Your task to perform on an android device: turn off smart reply in the gmail app Image 0: 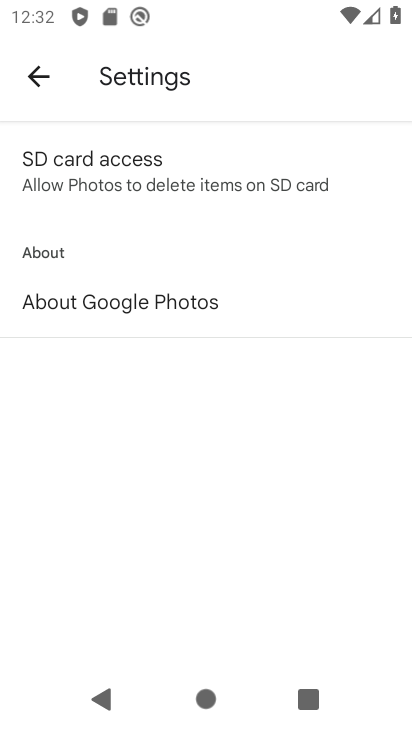
Step 0: press home button
Your task to perform on an android device: turn off smart reply in the gmail app Image 1: 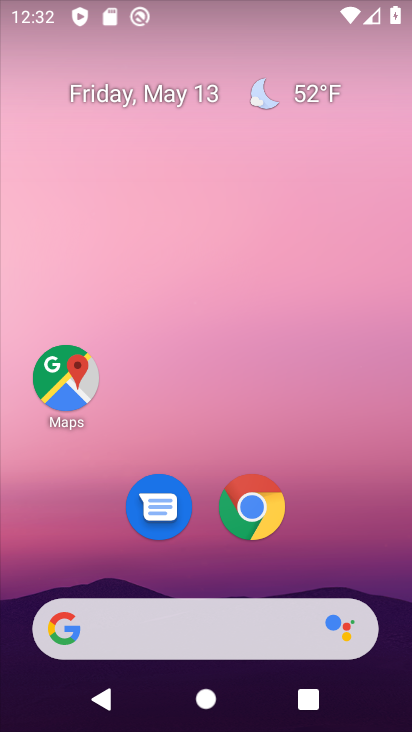
Step 1: drag from (185, 598) to (216, 147)
Your task to perform on an android device: turn off smart reply in the gmail app Image 2: 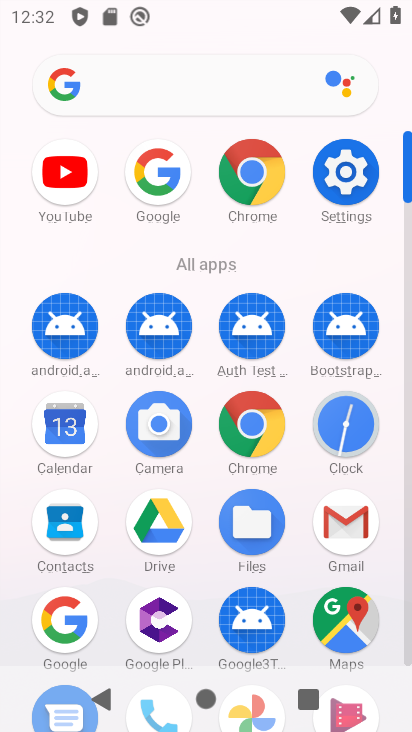
Step 2: click (339, 531)
Your task to perform on an android device: turn off smart reply in the gmail app Image 3: 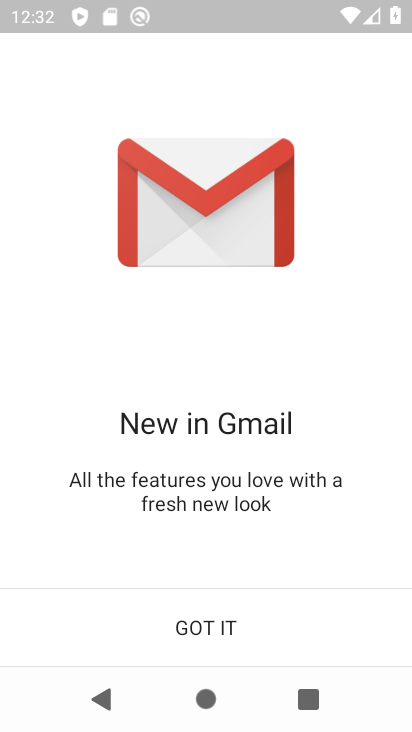
Step 3: click (220, 620)
Your task to perform on an android device: turn off smart reply in the gmail app Image 4: 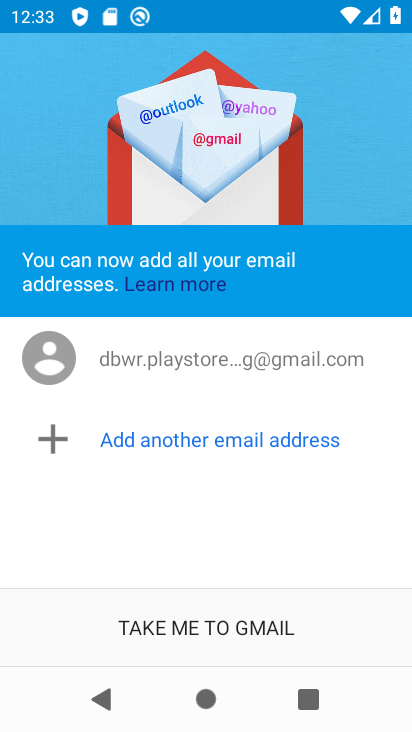
Step 4: click (218, 619)
Your task to perform on an android device: turn off smart reply in the gmail app Image 5: 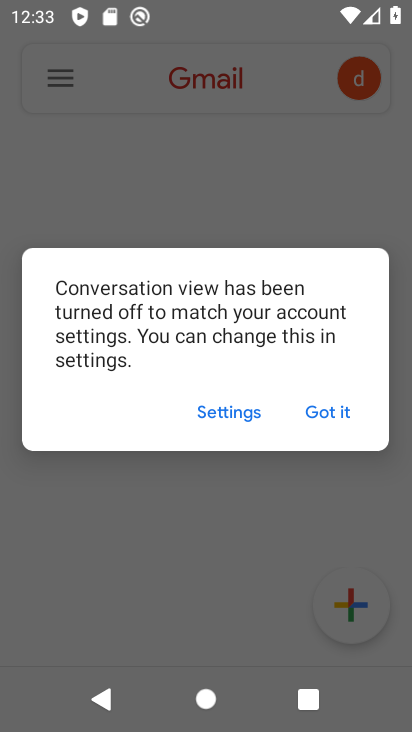
Step 5: click (306, 423)
Your task to perform on an android device: turn off smart reply in the gmail app Image 6: 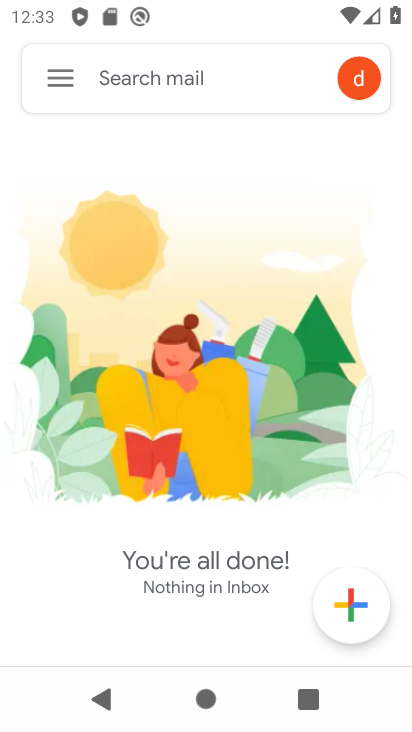
Step 6: click (64, 77)
Your task to perform on an android device: turn off smart reply in the gmail app Image 7: 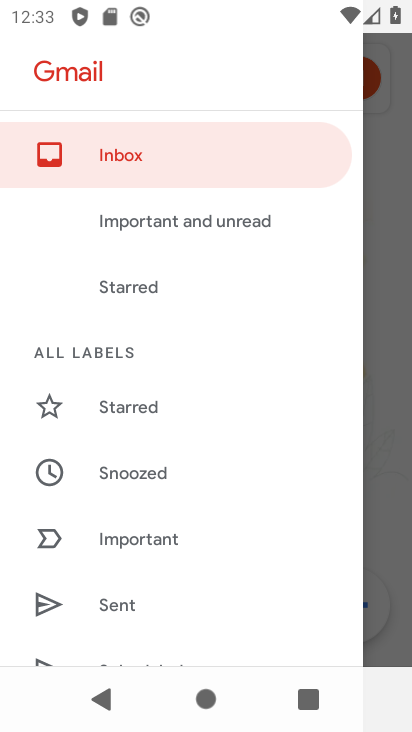
Step 7: drag from (112, 603) to (131, 237)
Your task to perform on an android device: turn off smart reply in the gmail app Image 8: 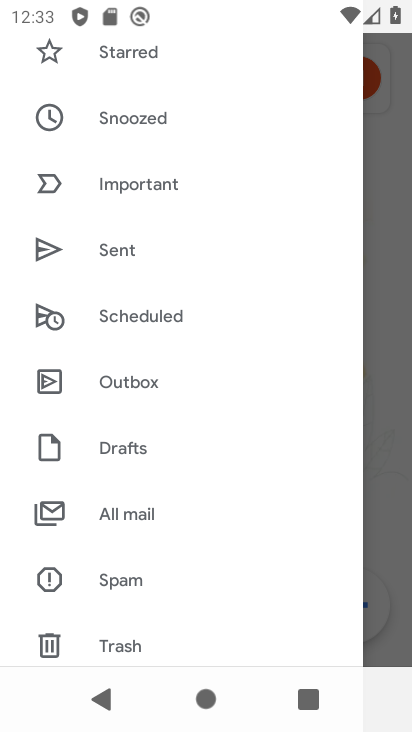
Step 8: drag from (159, 652) to (167, 310)
Your task to perform on an android device: turn off smart reply in the gmail app Image 9: 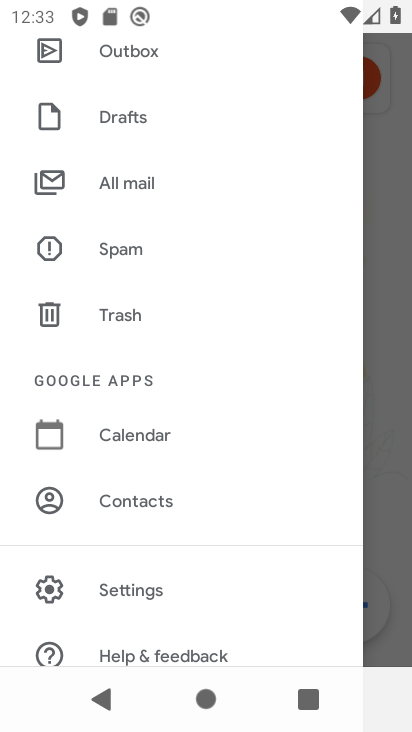
Step 9: click (135, 599)
Your task to perform on an android device: turn off smart reply in the gmail app Image 10: 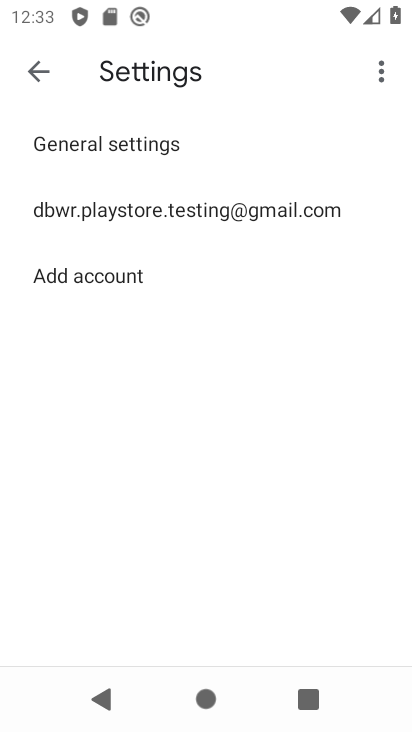
Step 10: click (135, 210)
Your task to perform on an android device: turn off smart reply in the gmail app Image 11: 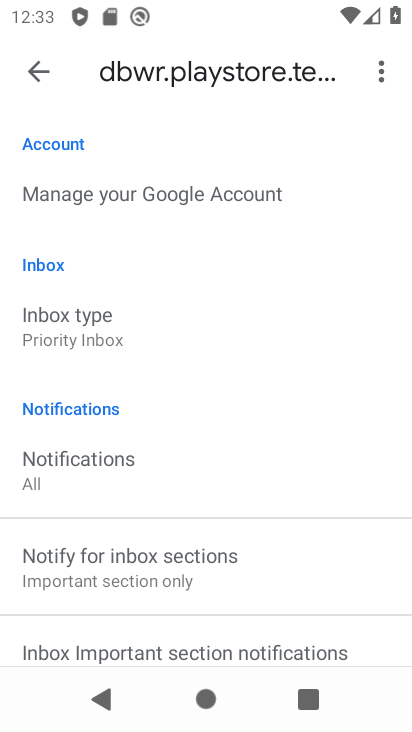
Step 11: drag from (116, 595) to (106, 239)
Your task to perform on an android device: turn off smart reply in the gmail app Image 12: 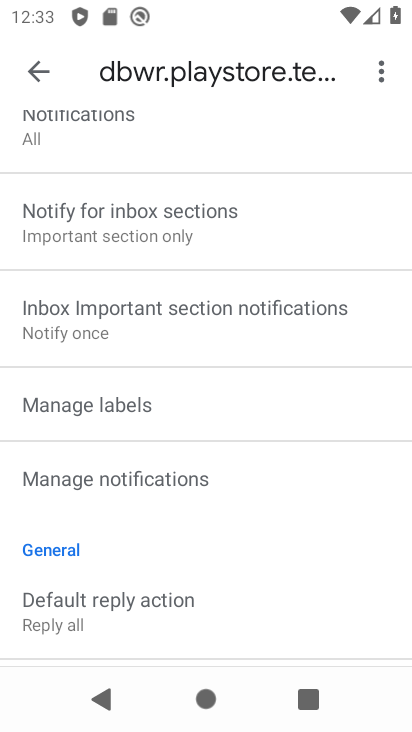
Step 12: drag from (123, 629) to (167, 305)
Your task to perform on an android device: turn off smart reply in the gmail app Image 13: 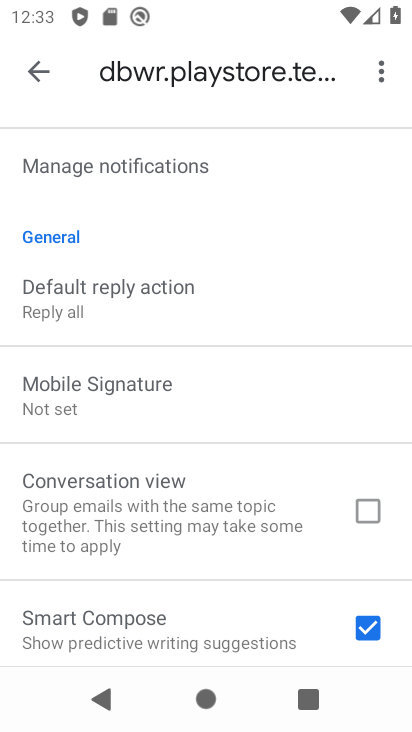
Step 13: drag from (173, 624) to (177, 329)
Your task to perform on an android device: turn off smart reply in the gmail app Image 14: 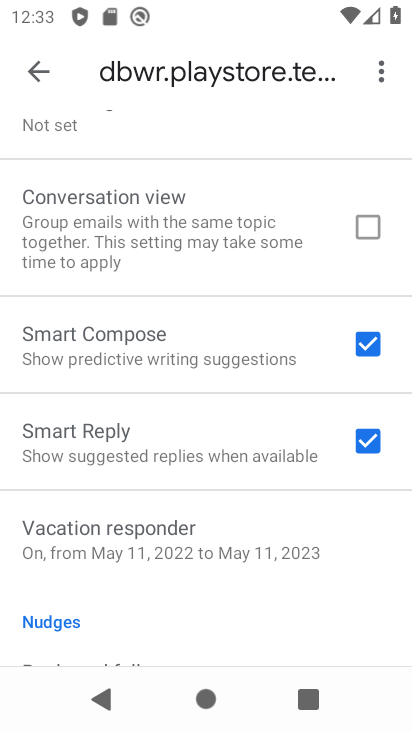
Step 14: click (366, 435)
Your task to perform on an android device: turn off smart reply in the gmail app Image 15: 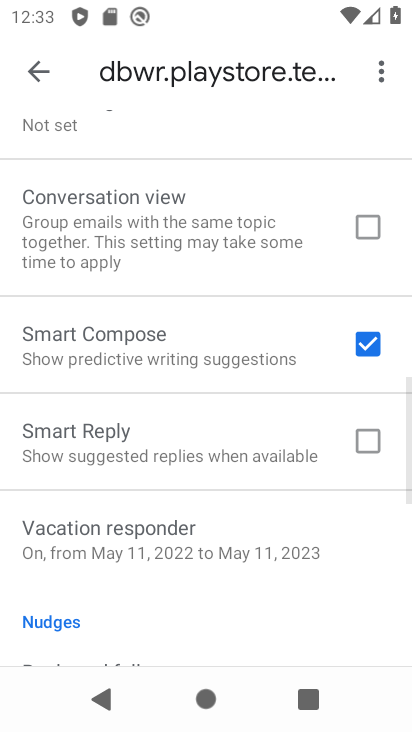
Step 15: task complete